Your task to perform on an android device: Open wifi settings Image 0: 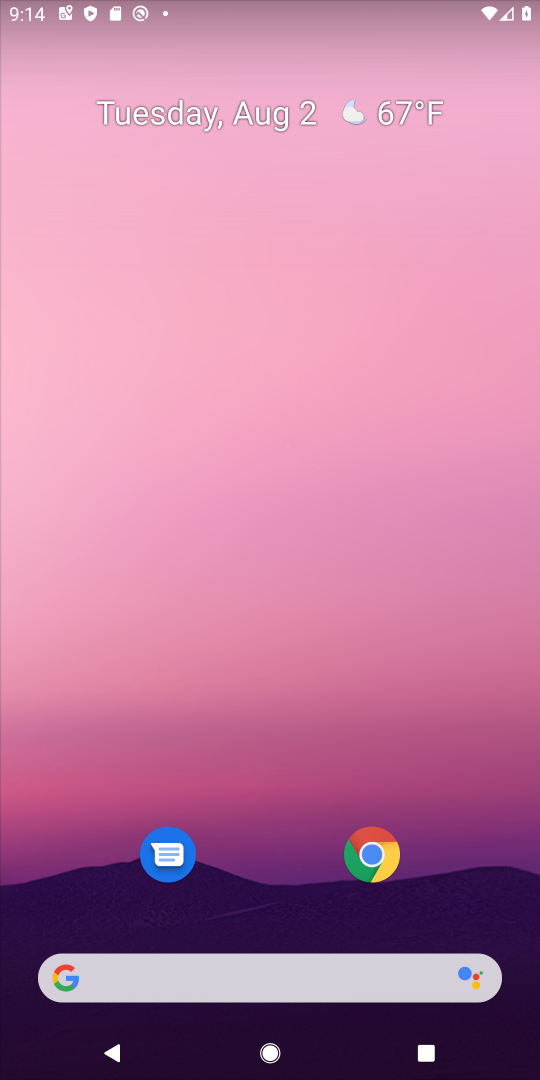
Step 0: drag from (285, 919) to (323, 12)
Your task to perform on an android device: Open wifi settings Image 1: 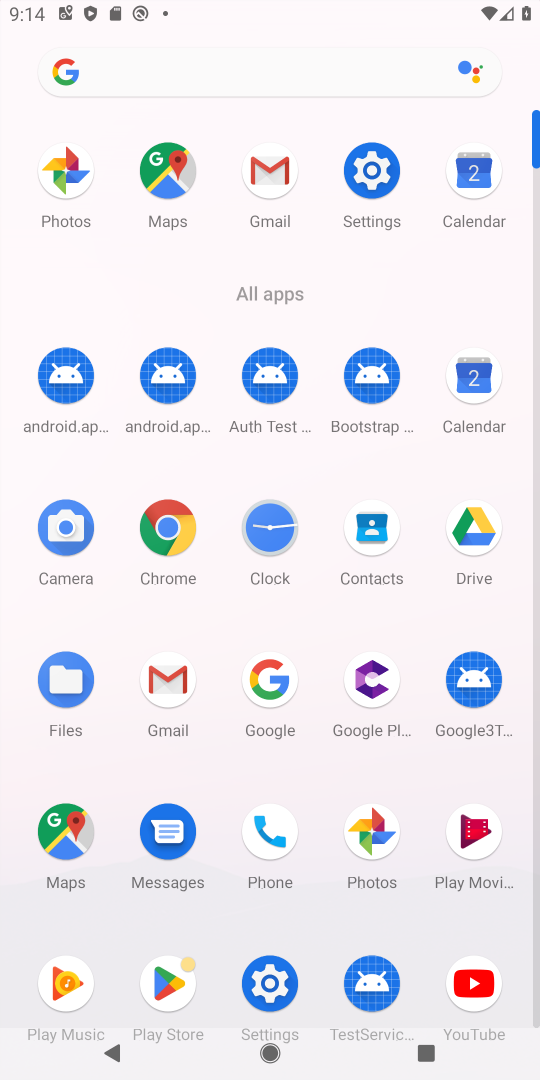
Step 1: click (380, 171)
Your task to perform on an android device: Open wifi settings Image 2: 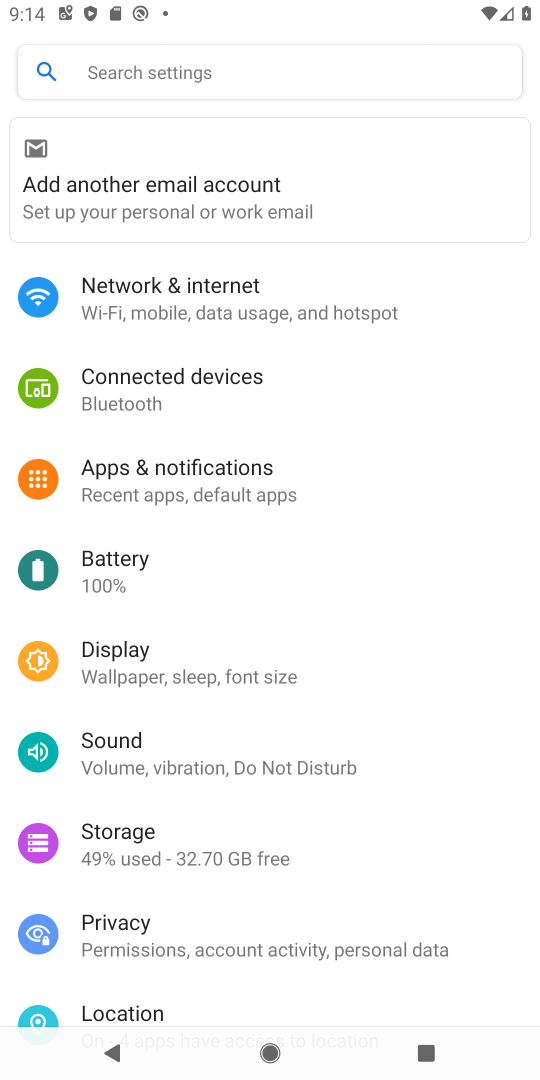
Step 2: click (115, 275)
Your task to perform on an android device: Open wifi settings Image 3: 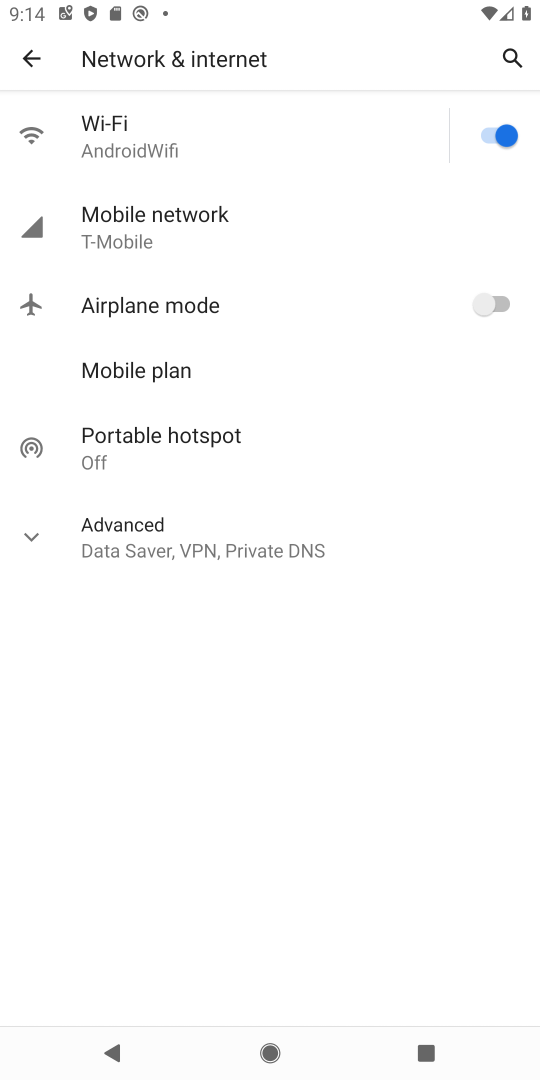
Step 3: click (127, 146)
Your task to perform on an android device: Open wifi settings Image 4: 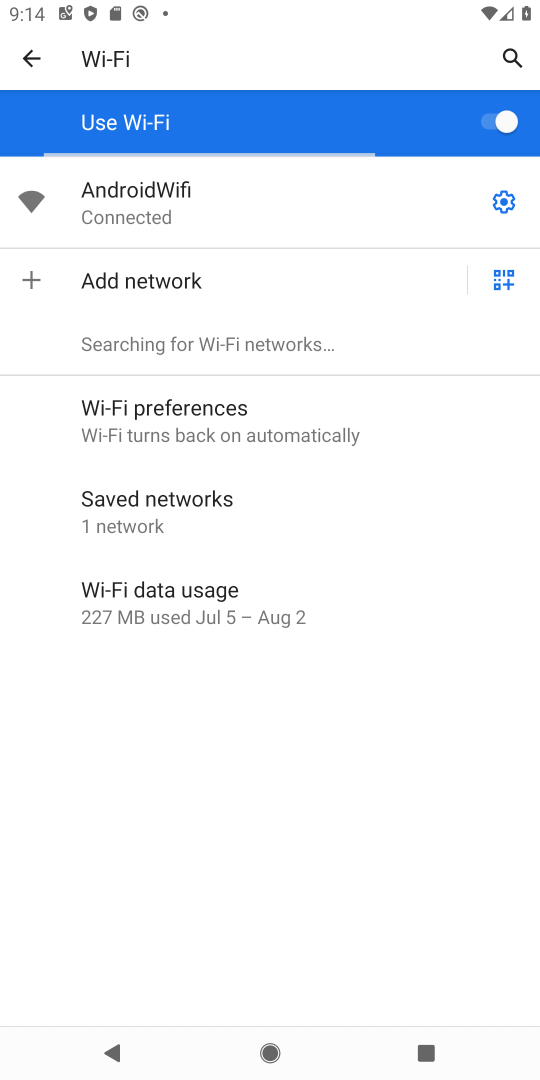
Step 4: task complete